Your task to perform on an android device: clear all cookies in the chrome app Image 0: 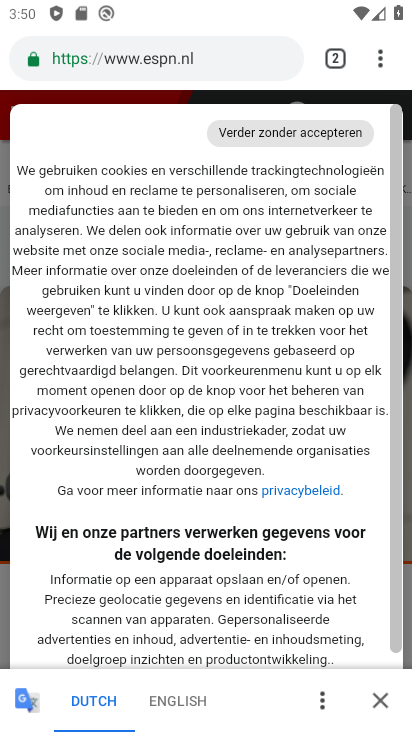
Step 0: drag from (382, 51) to (156, 332)
Your task to perform on an android device: clear all cookies in the chrome app Image 1: 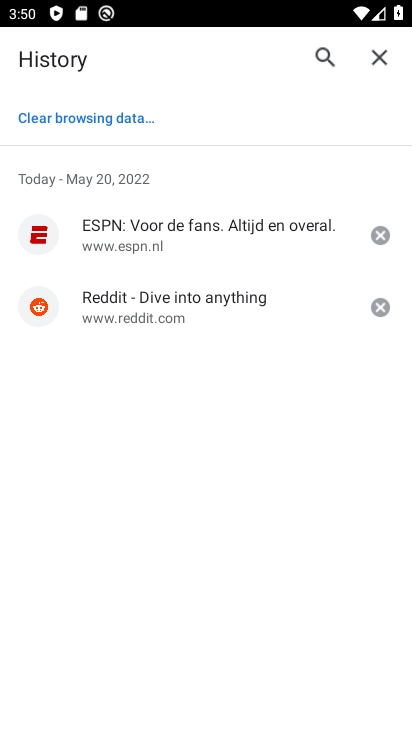
Step 1: click (87, 117)
Your task to perform on an android device: clear all cookies in the chrome app Image 2: 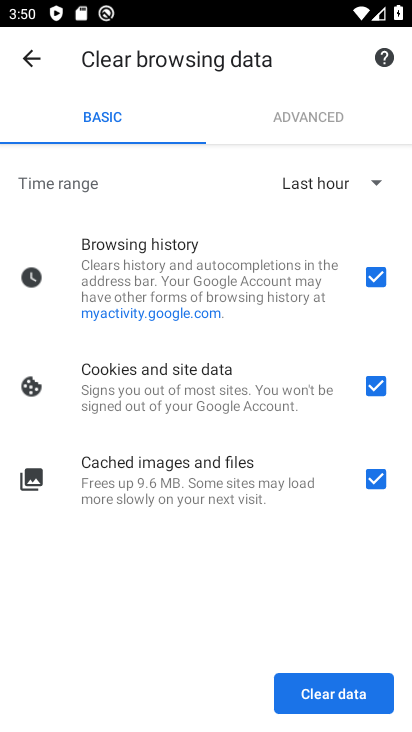
Step 2: click (365, 272)
Your task to perform on an android device: clear all cookies in the chrome app Image 3: 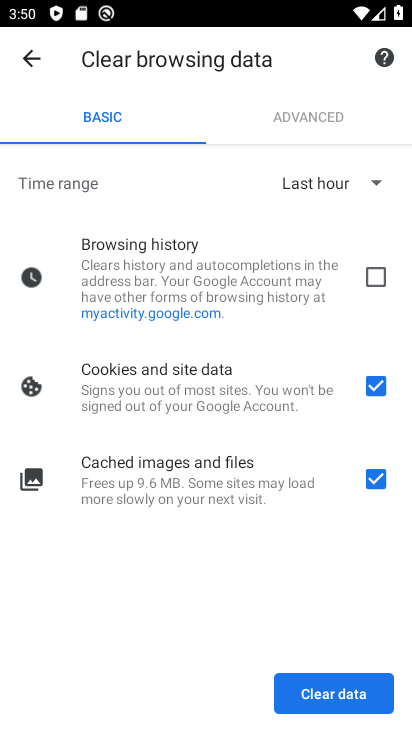
Step 3: click (379, 485)
Your task to perform on an android device: clear all cookies in the chrome app Image 4: 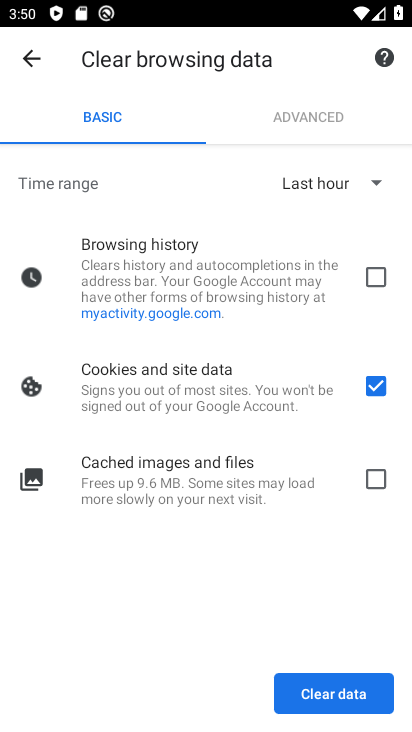
Step 4: click (315, 698)
Your task to perform on an android device: clear all cookies in the chrome app Image 5: 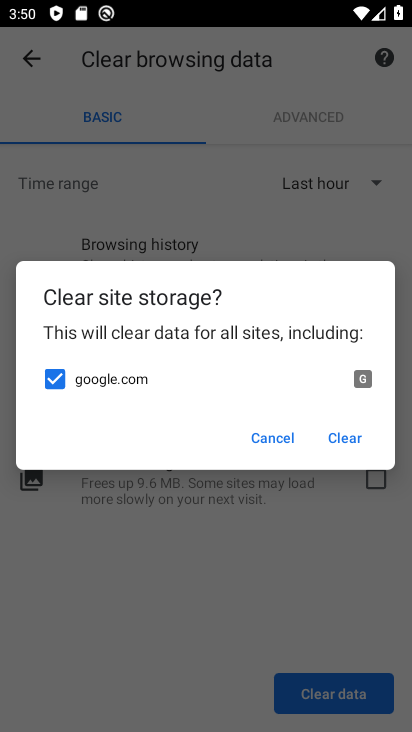
Step 5: click (341, 443)
Your task to perform on an android device: clear all cookies in the chrome app Image 6: 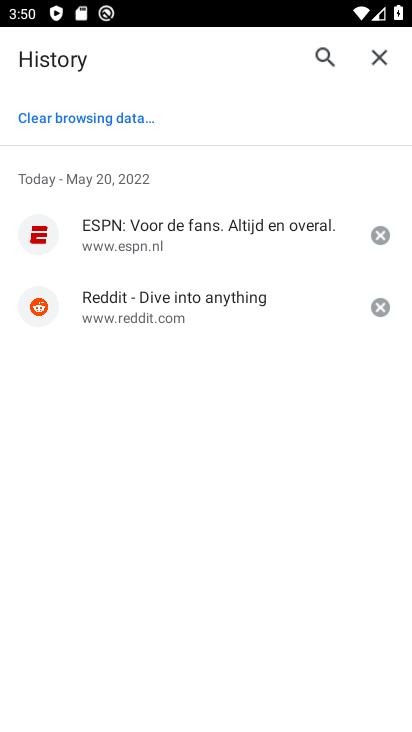
Step 6: task complete